Your task to perform on an android device: change the clock display to analog Image 0: 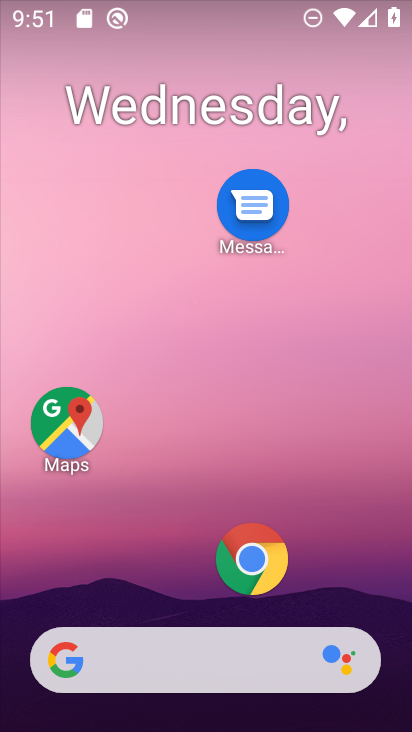
Step 0: drag from (170, 556) to (148, 147)
Your task to perform on an android device: change the clock display to analog Image 1: 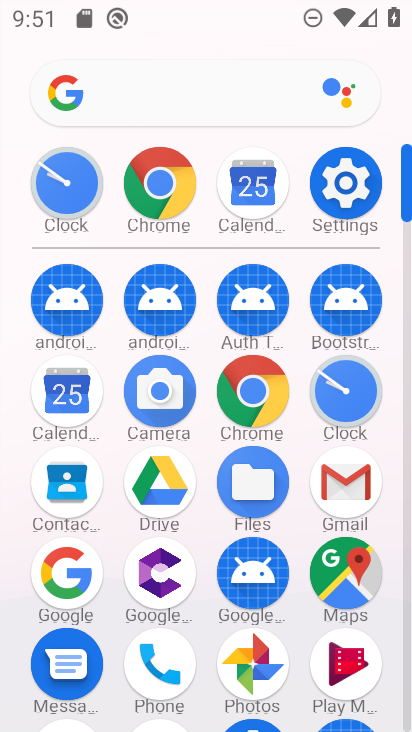
Step 1: click (347, 391)
Your task to perform on an android device: change the clock display to analog Image 2: 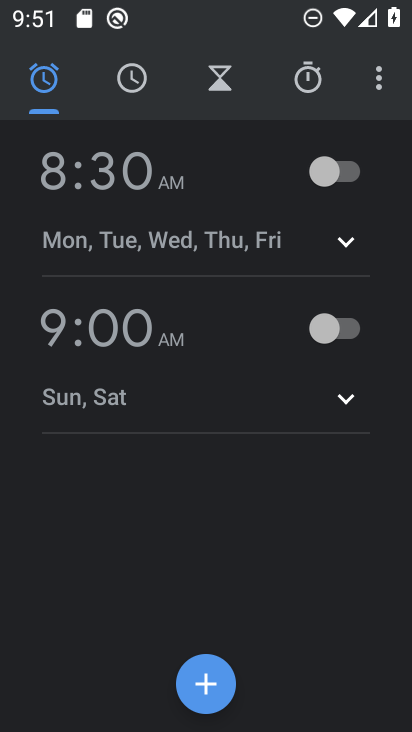
Step 2: click (379, 69)
Your task to perform on an android device: change the clock display to analog Image 3: 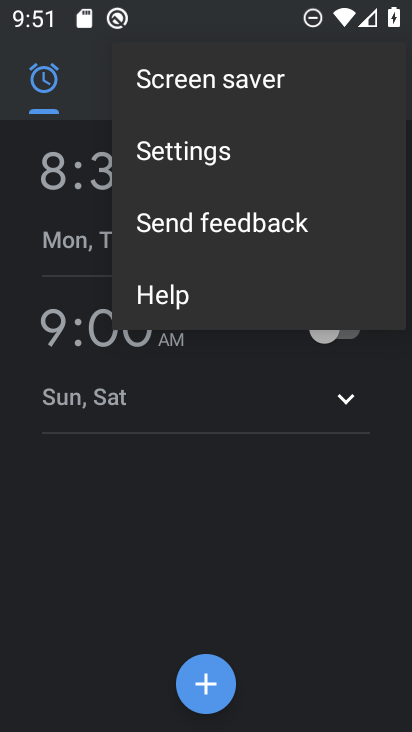
Step 3: click (244, 153)
Your task to perform on an android device: change the clock display to analog Image 4: 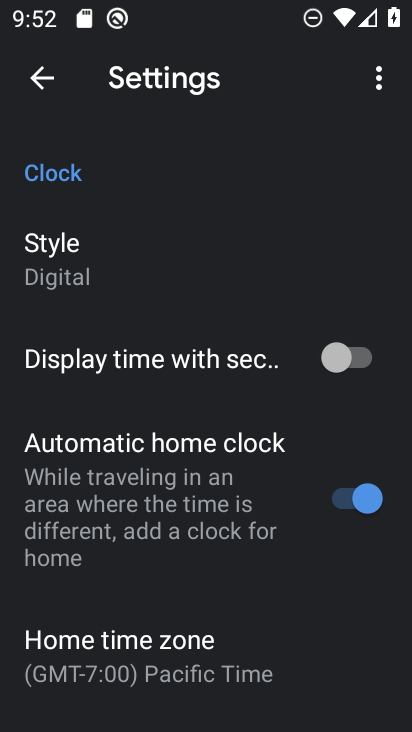
Step 4: click (166, 284)
Your task to perform on an android device: change the clock display to analog Image 5: 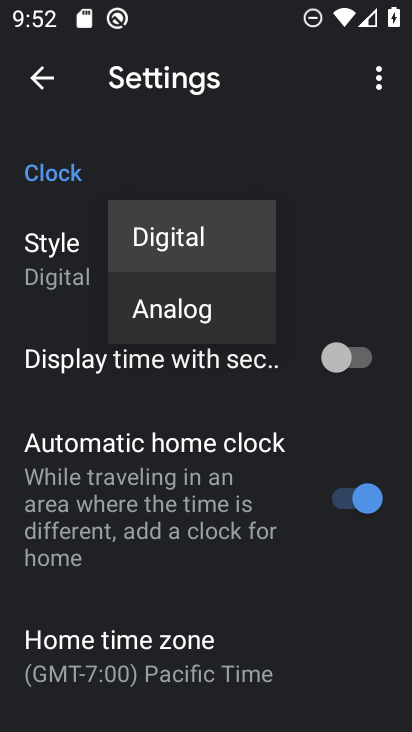
Step 5: click (213, 242)
Your task to perform on an android device: change the clock display to analog Image 6: 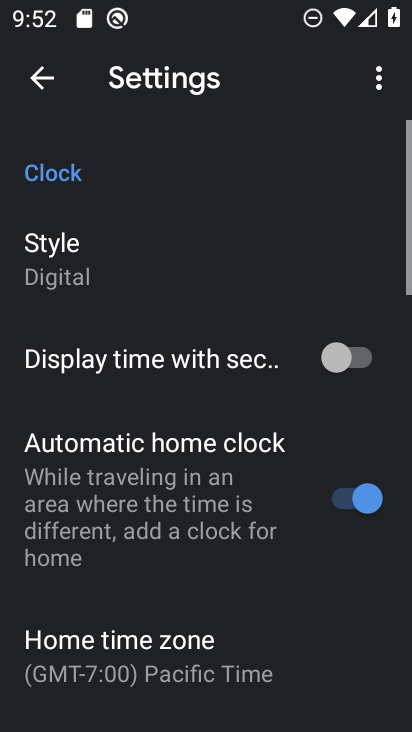
Step 6: click (139, 266)
Your task to perform on an android device: change the clock display to analog Image 7: 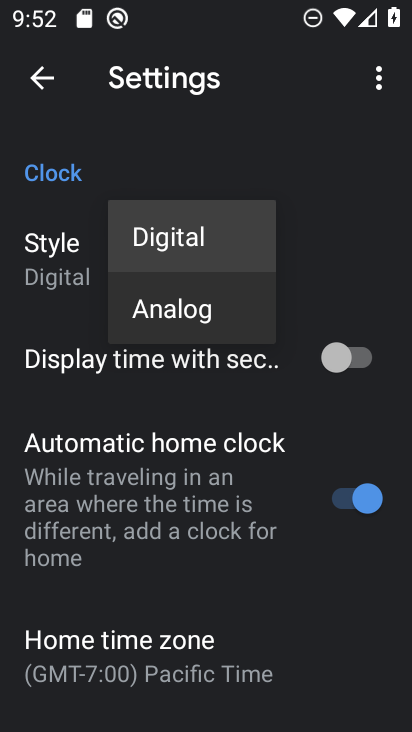
Step 7: click (190, 320)
Your task to perform on an android device: change the clock display to analog Image 8: 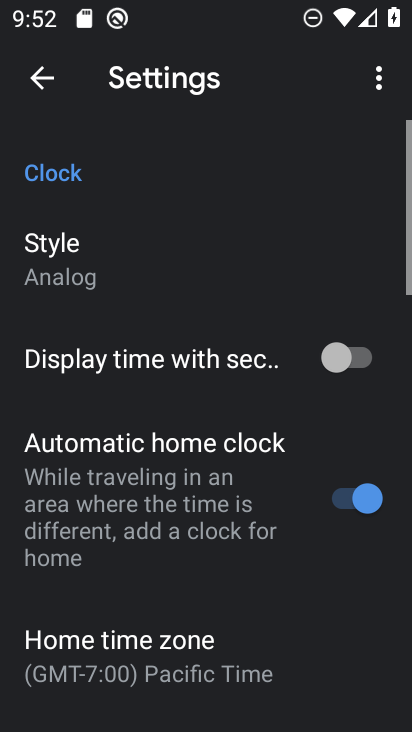
Step 8: task complete